Your task to perform on an android device: Go to privacy settings Image 0: 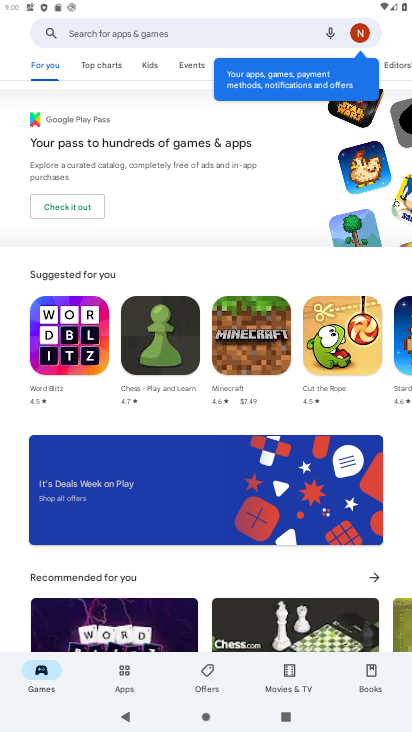
Step 0: press home button
Your task to perform on an android device: Go to privacy settings Image 1: 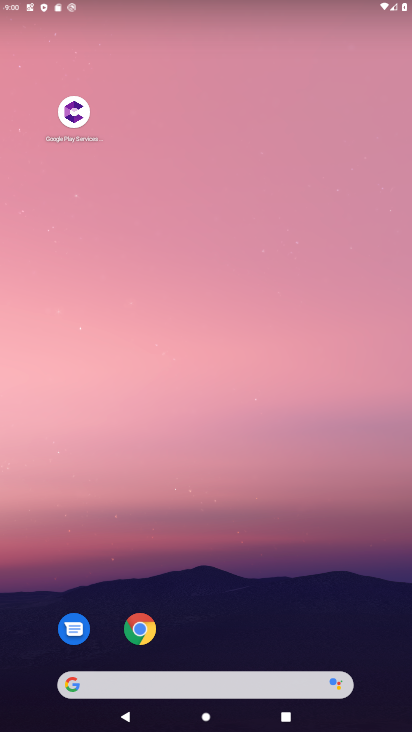
Step 1: drag from (244, 673) to (312, 82)
Your task to perform on an android device: Go to privacy settings Image 2: 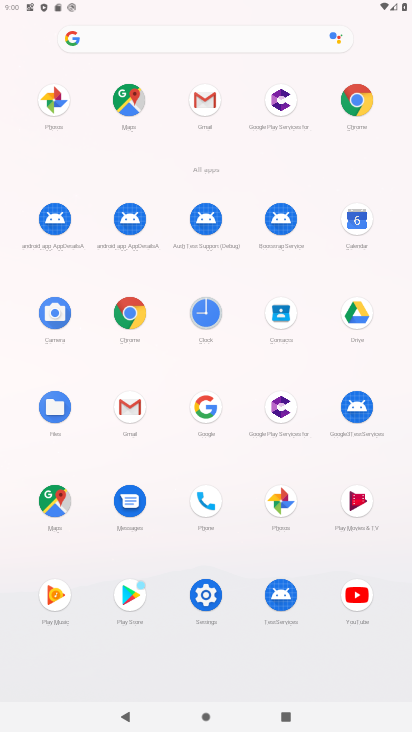
Step 2: click (214, 597)
Your task to perform on an android device: Go to privacy settings Image 3: 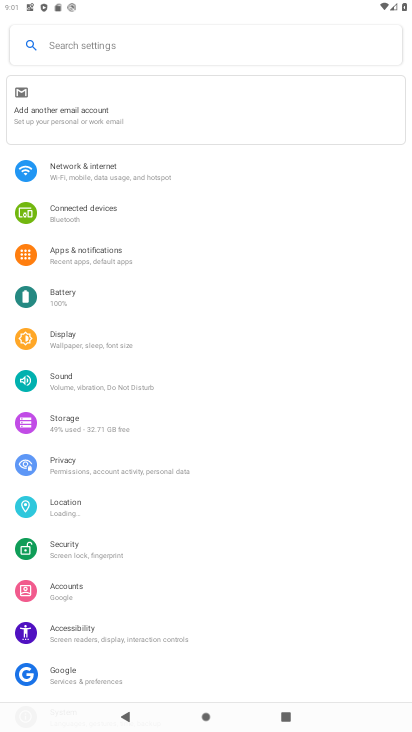
Step 3: drag from (175, 669) to (185, 440)
Your task to perform on an android device: Go to privacy settings Image 4: 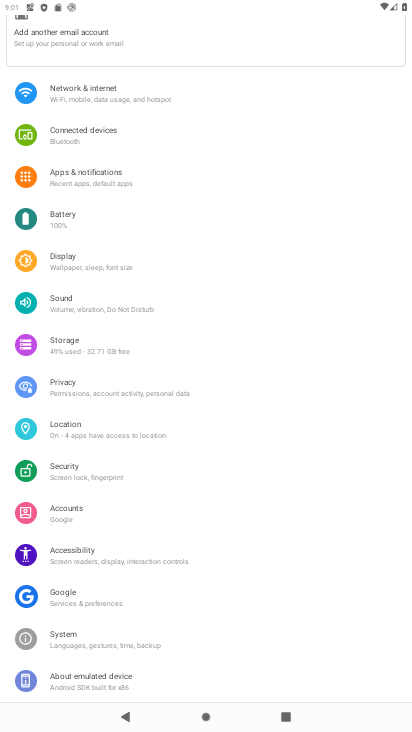
Step 4: click (86, 389)
Your task to perform on an android device: Go to privacy settings Image 5: 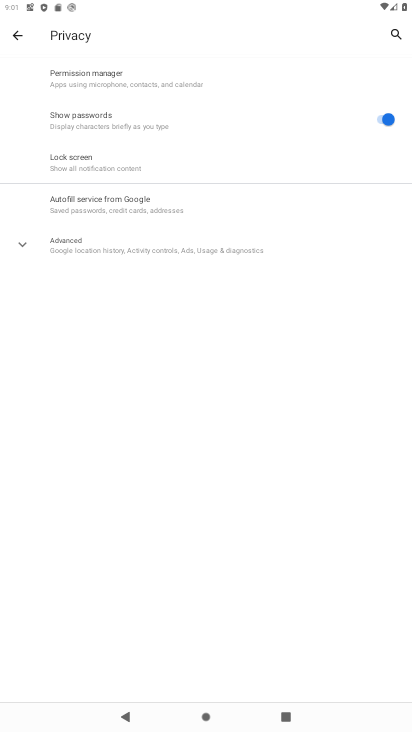
Step 5: task complete